Your task to perform on an android device: Open settings Image 0: 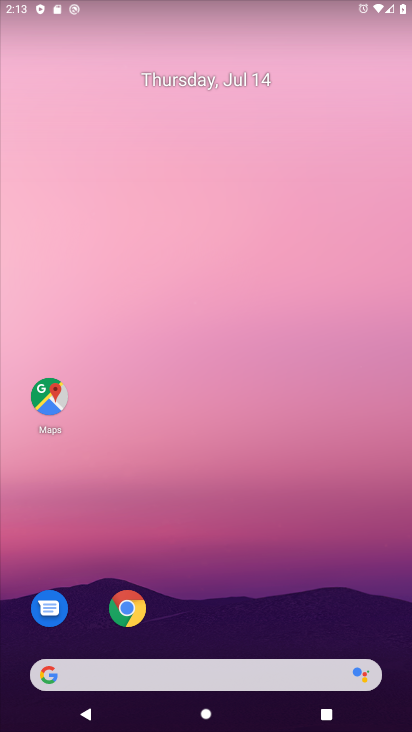
Step 0: drag from (265, 721) to (265, 147)
Your task to perform on an android device: Open settings Image 1: 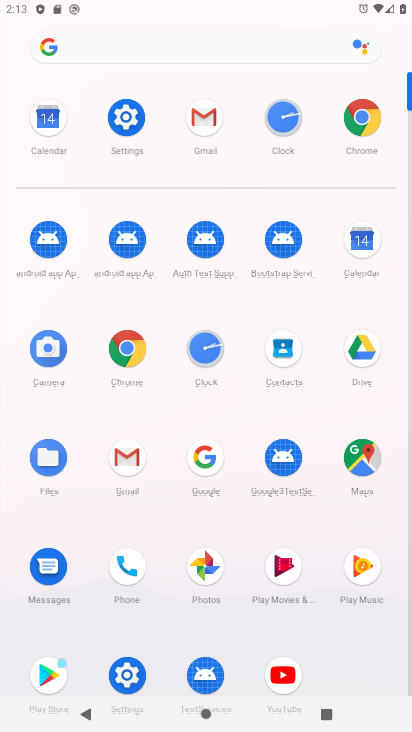
Step 1: click (134, 118)
Your task to perform on an android device: Open settings Image 2: 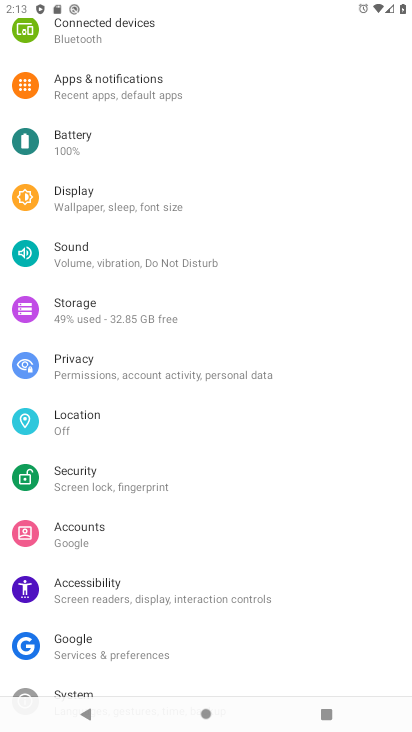
Step 2: task complete